Your task to perform on an android device: Go to Google maps Image 0: 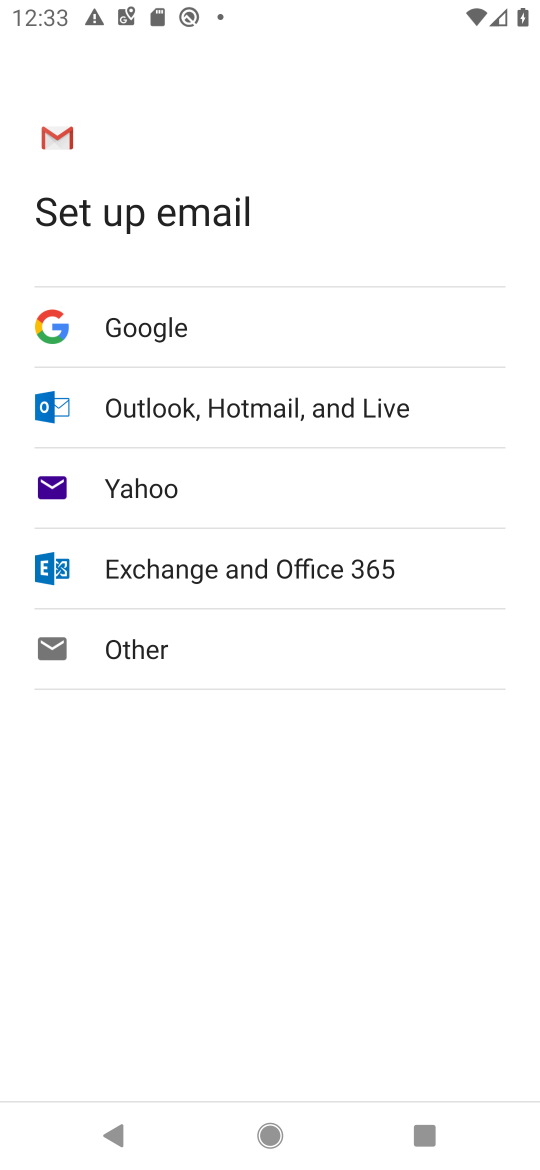
Step 0: press home button
Your task to perform on an android device: Go to Google maps Image 1: 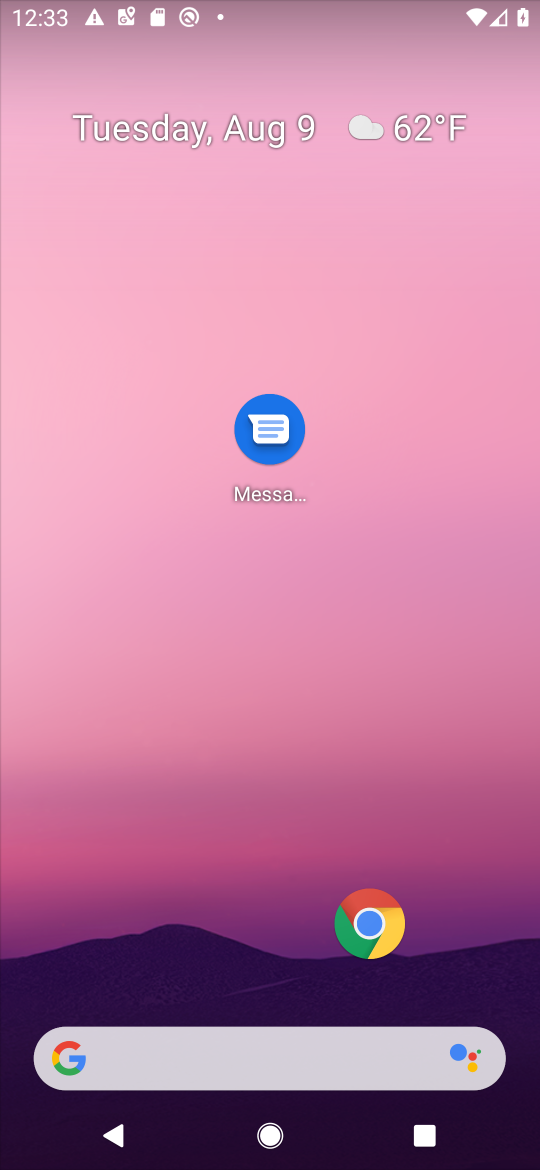
Step 1: drag from (11, 1139) to (537, 348)
Your task to perform on an android device: Go to Google maps Image 2: 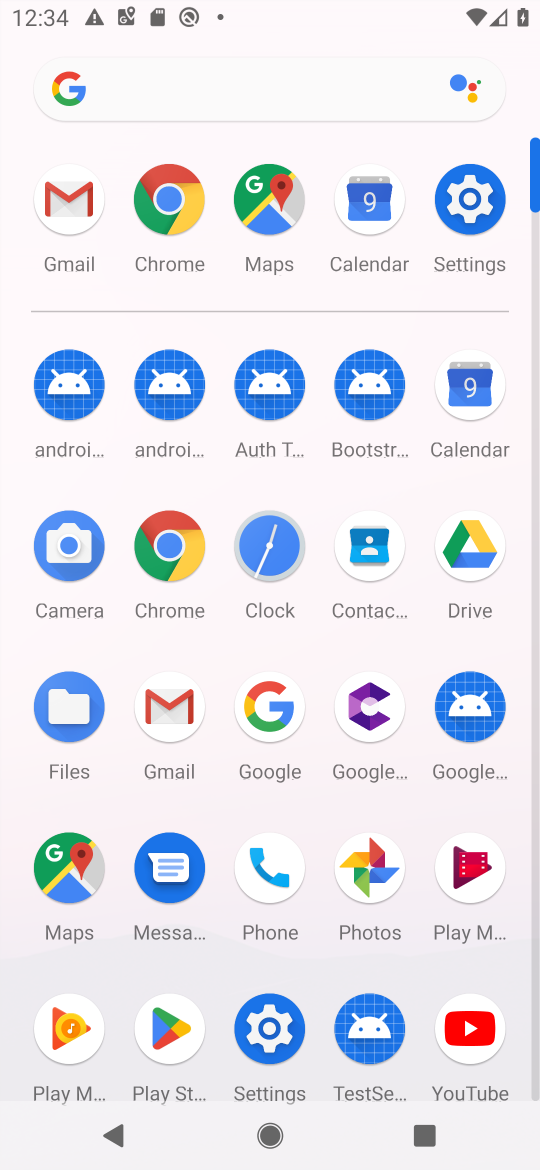
Step 2: click (72, 897)
Your task to perform on an android device: Go to Google maps Image 3: 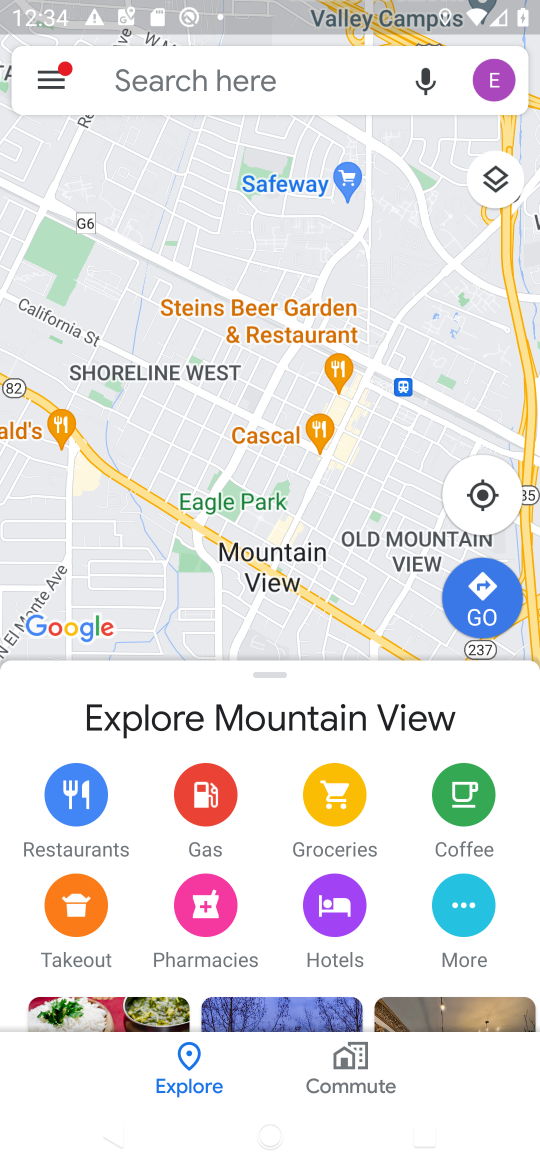
Step 3: task complete